Your task to perform on an android device: Go to notification settings Image 0: 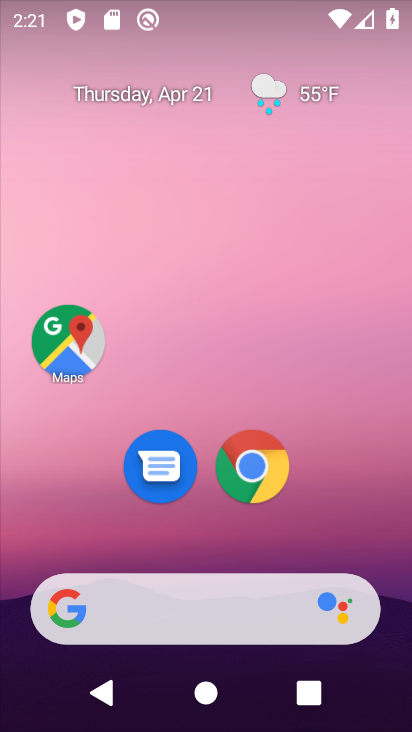
Step 0: drag from (217, 545) to (255, 9)
Your task to perform on an android device: Go to notification settings Image 1: 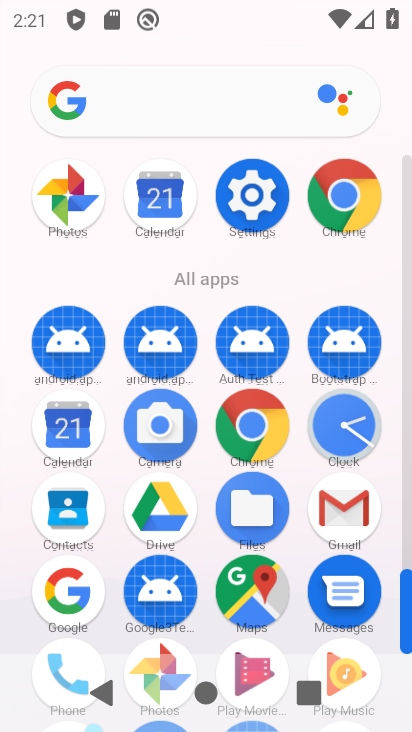
Step 1: click (239, 181)
Your task to perform on an android device: Go to notification settings Image 2: 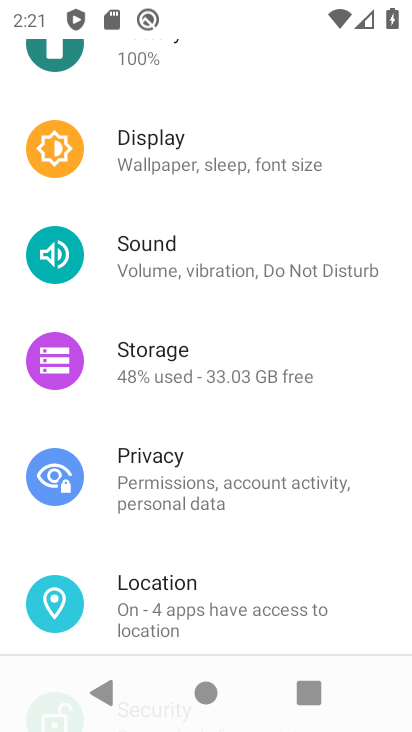
Step 2: drag from (255, 298) to (312, 574)
Your task to perform on an android device: Go to notification settings Image 3: 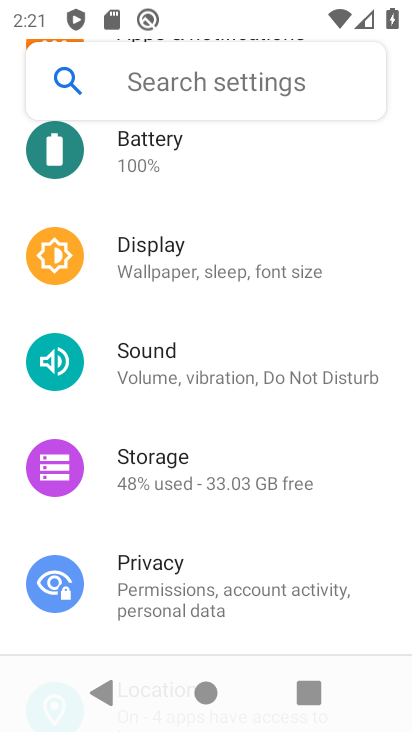
Step 3: drag from (268, 291) to (287, 591)
Your task to perform on an android device: Go to notification settings Image 4: 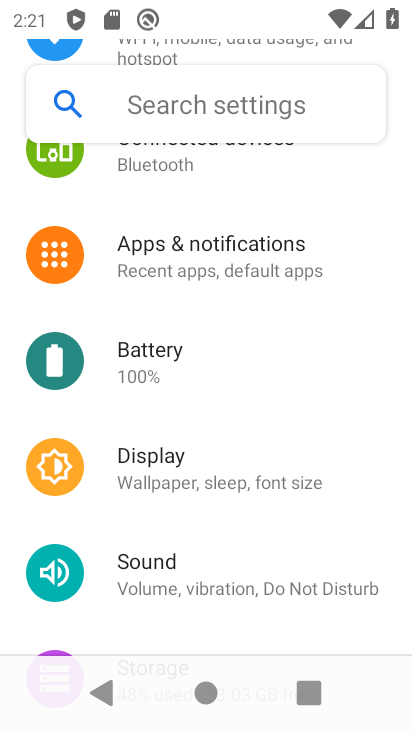
Step 4: click (219, 246)
Your task to perform on an android device: Go to notification settings Image 5: 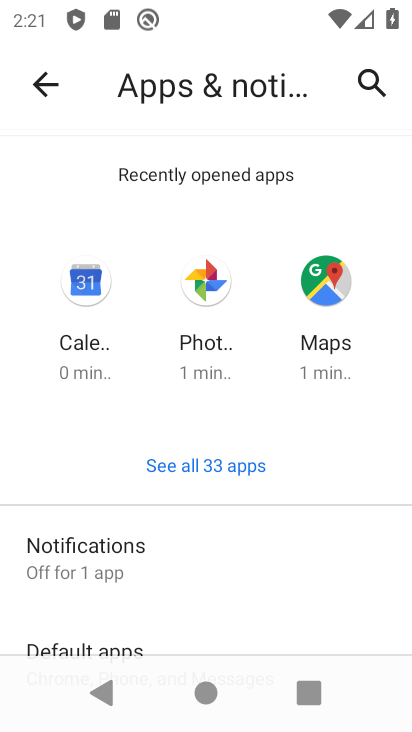
Step 5: task complete